Your task to perform on an android device: Add "bose soundlink" to the cart on amazon Image 0: 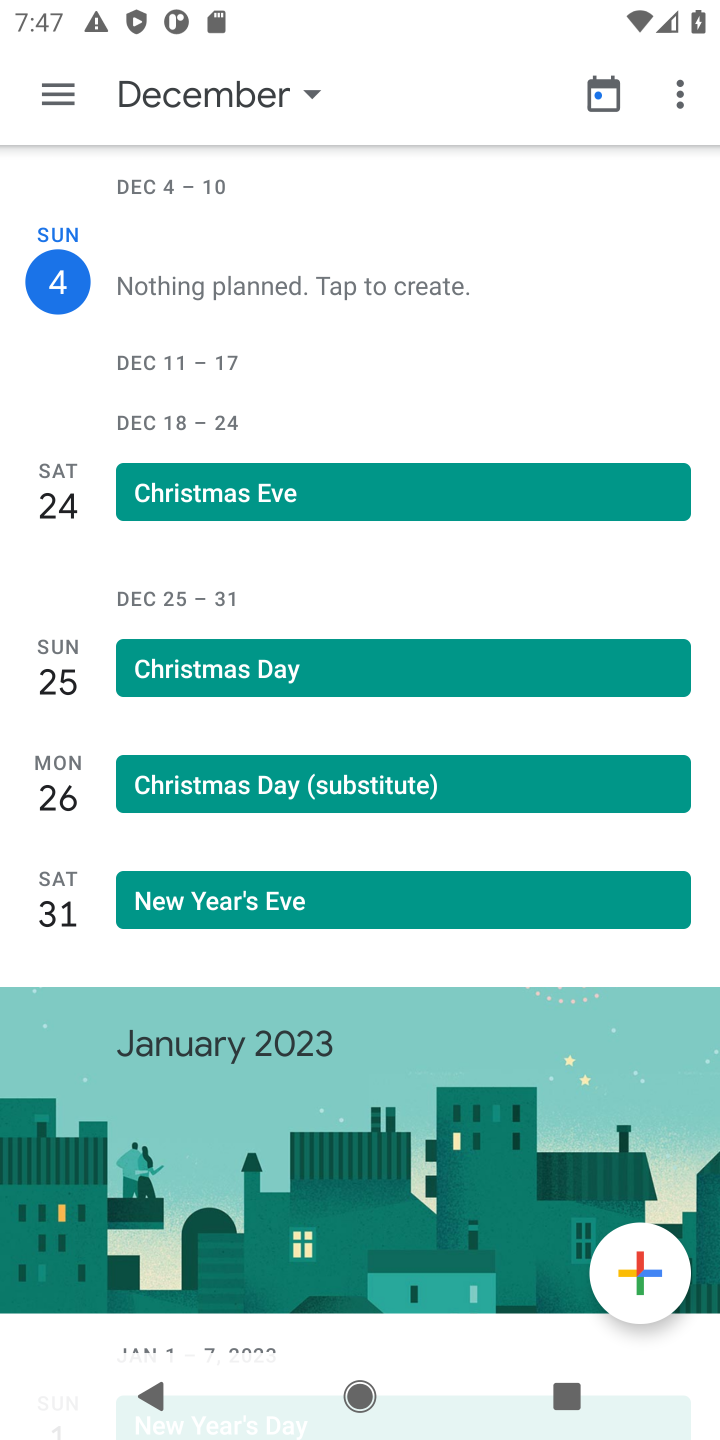
Step 0: press home button
Your task to perform on an android device: Add "bose soundlink" to the cart on amazon Image 1: 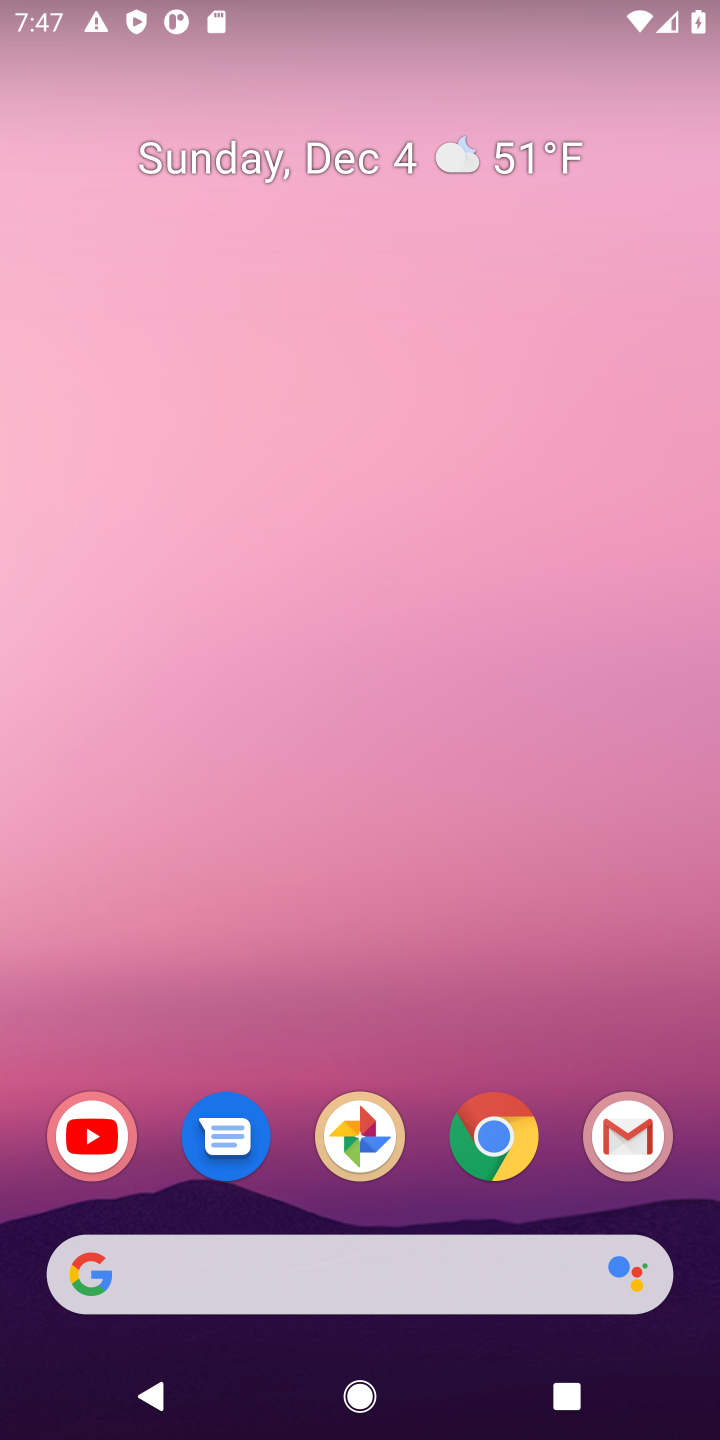
Step 1: click (469, 1145)
Your task to perform on an android device: Add "bose soundlink" to the cart on amazon Image 2: 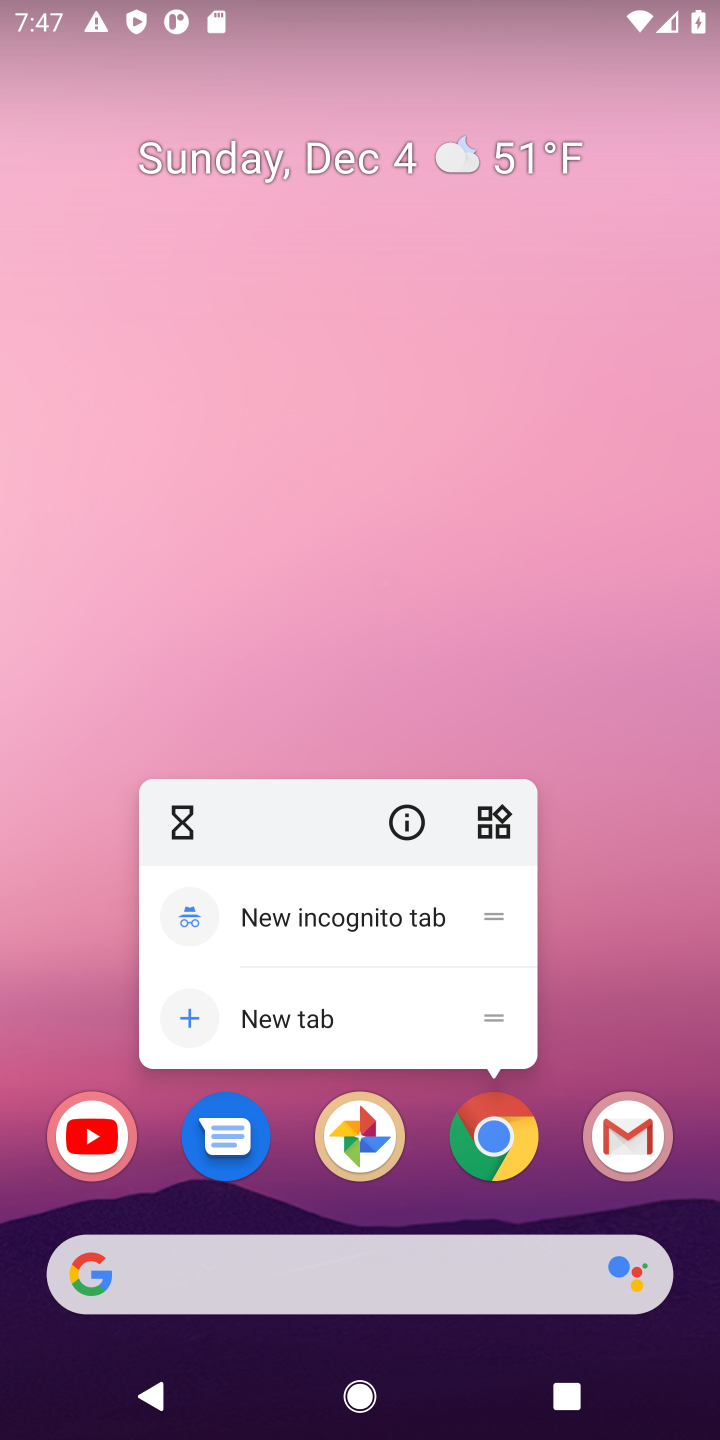
Step 2: click (475, 1155)
Your task to perform on an android device: Add "bose soundlink" to the cart on amazon Image 3: 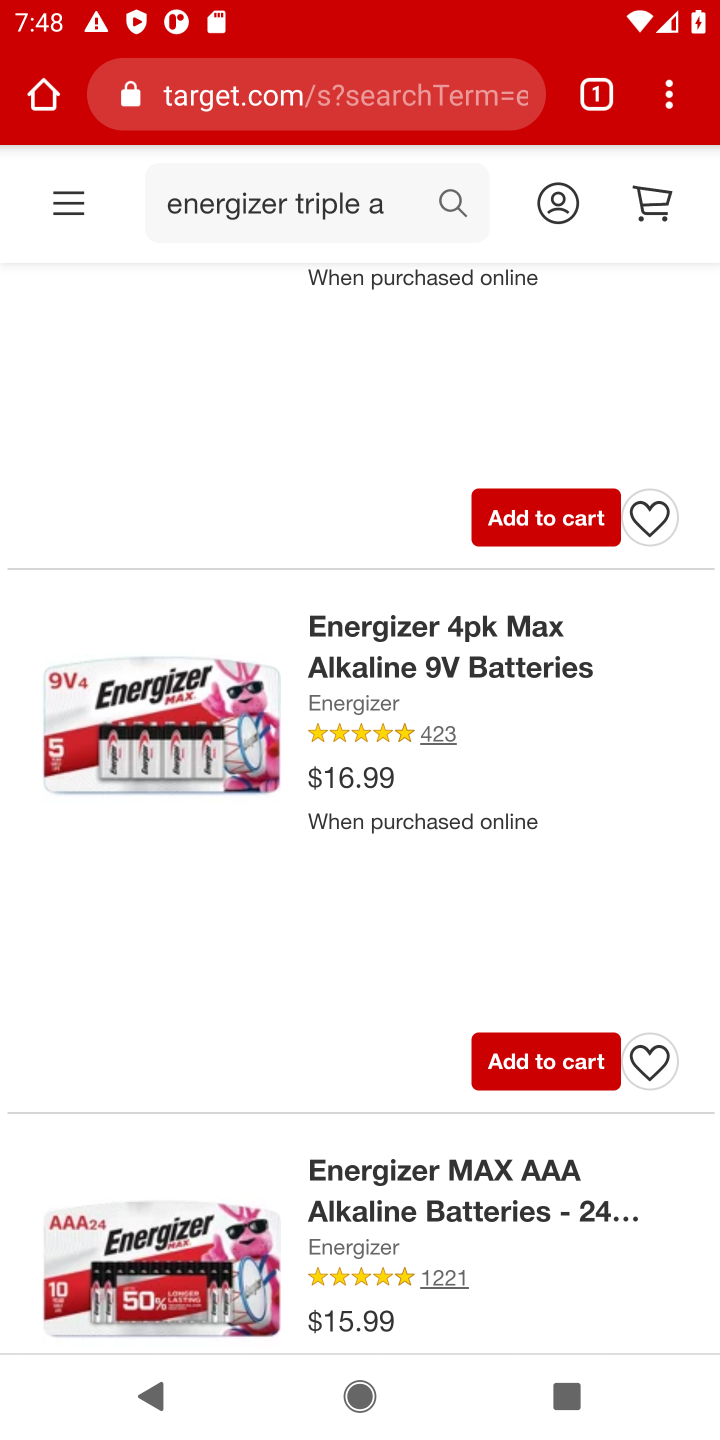
Step 3: click (413, 110)
Your task to perform on an android device: Add "bose soundlink" to the cart on amazon Image 4: 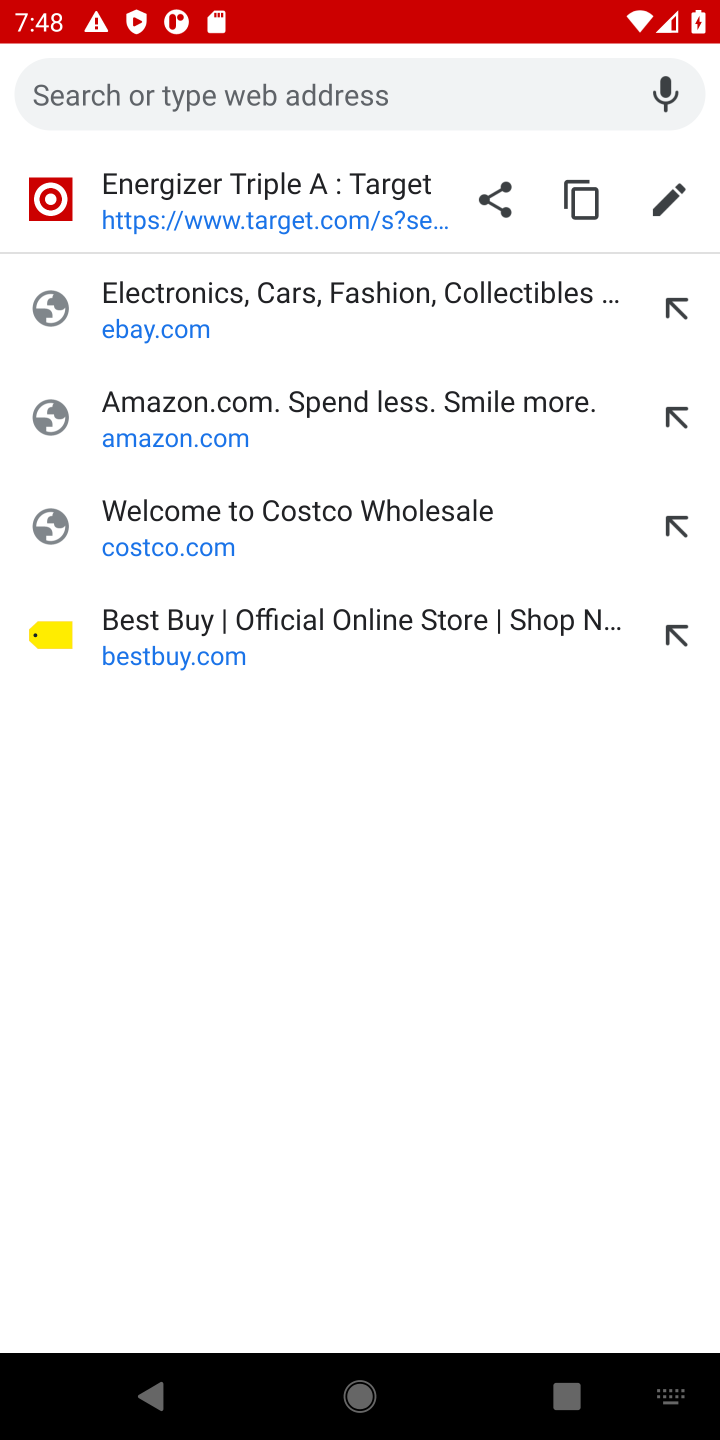
Step 4: click (307, 397)
Your task to perform on an android device: Add "bose soundlink" to the cart on amazon Image 5: 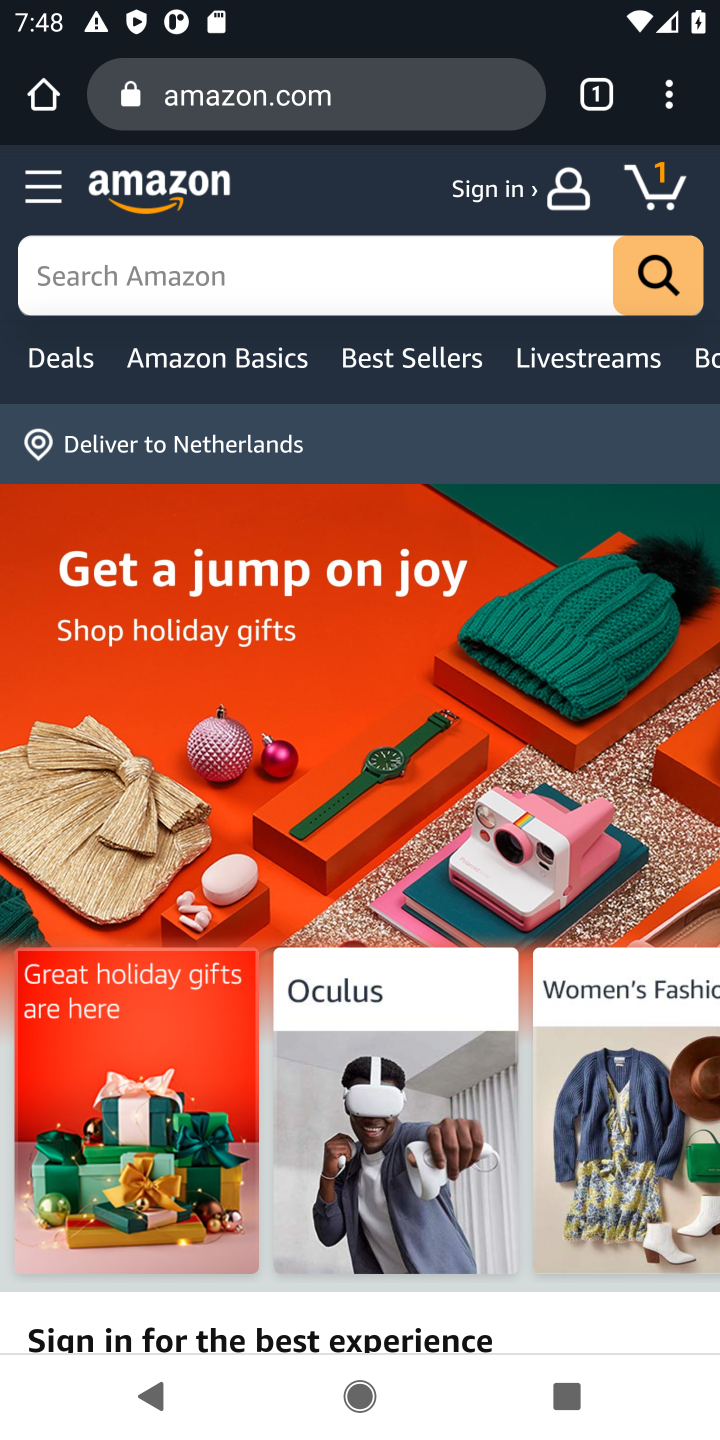
Step 5: click (330, 266)
Your task to perform on an android device: Add "bose soundlink" to the cart on amazon Image 6: 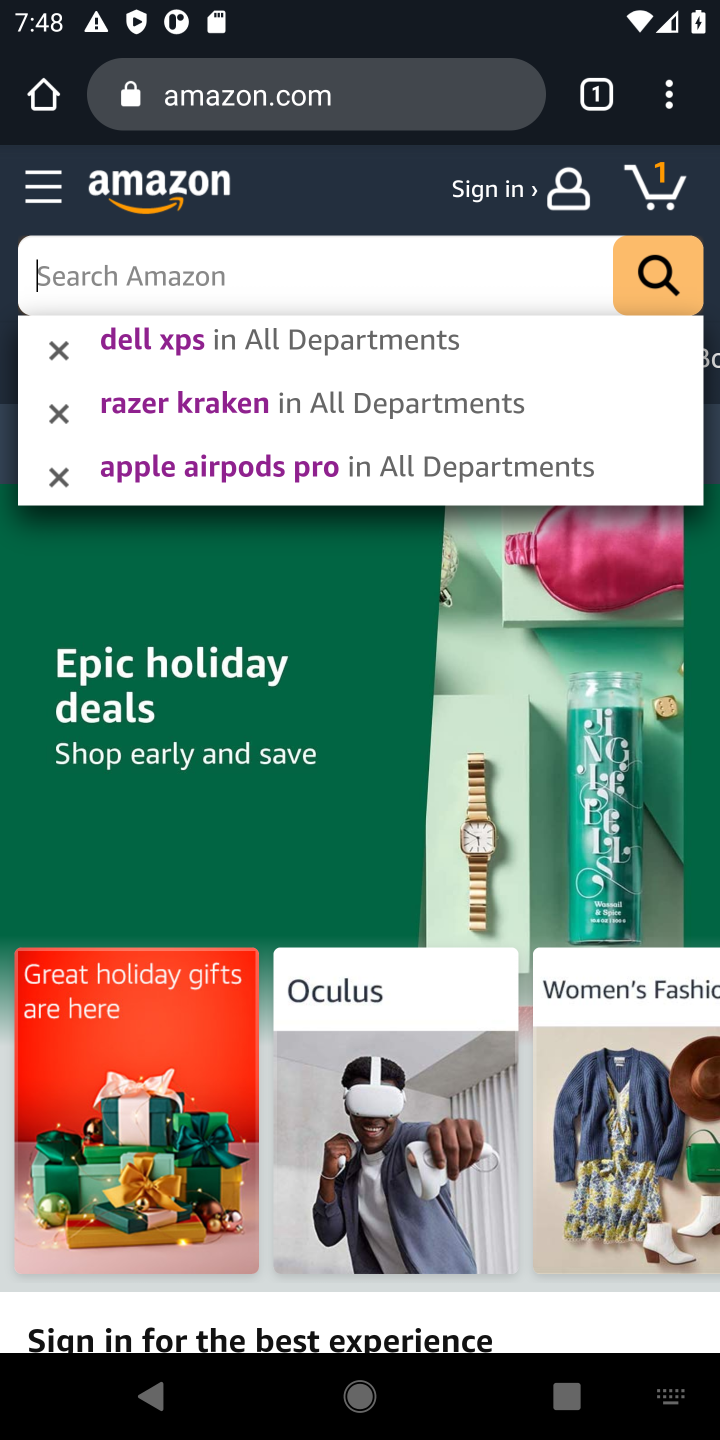
Step 6: type "bose soundlink"
Your task to perform on an android device: Add "bose soundlink" to the cart on amazon Image 7: 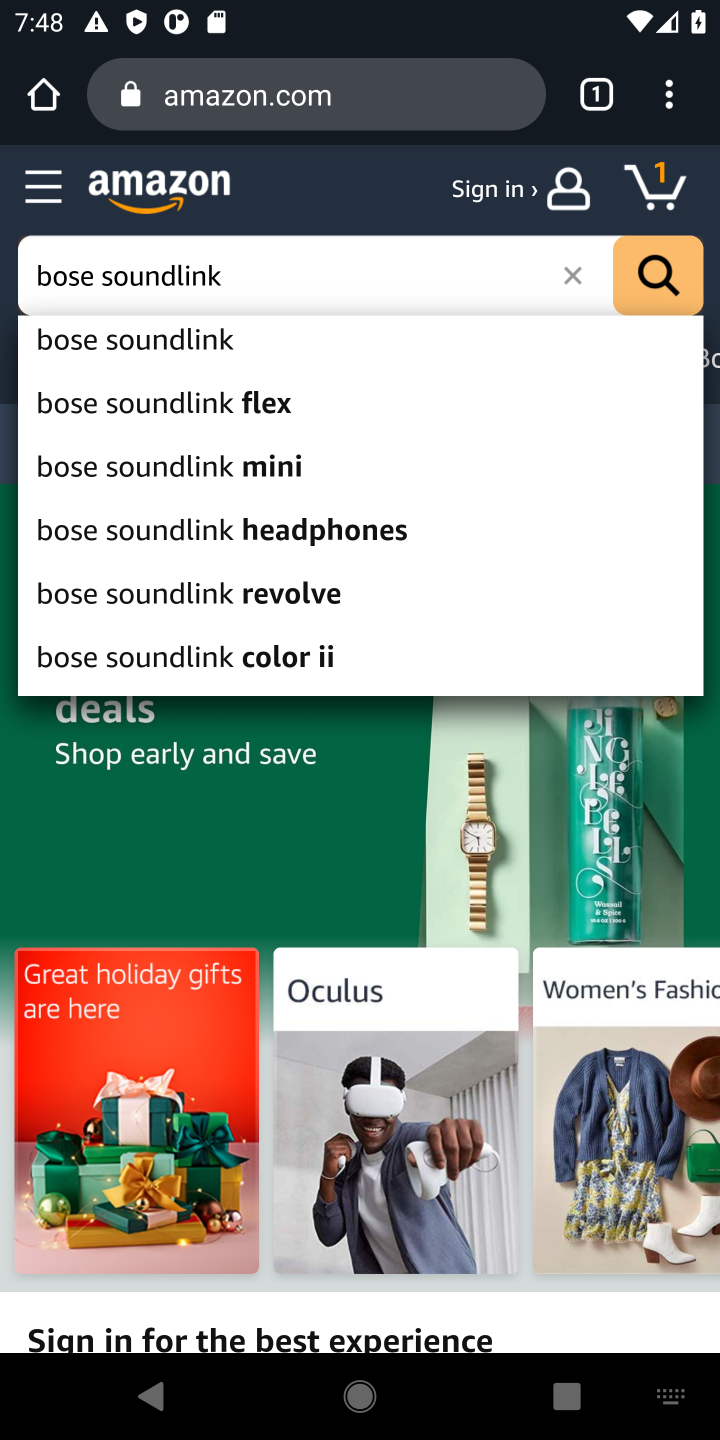
Step 7: click (195, 338)
Your task to perform on an android device: Add "bose soundlink" to the cart on amazon Image 8: 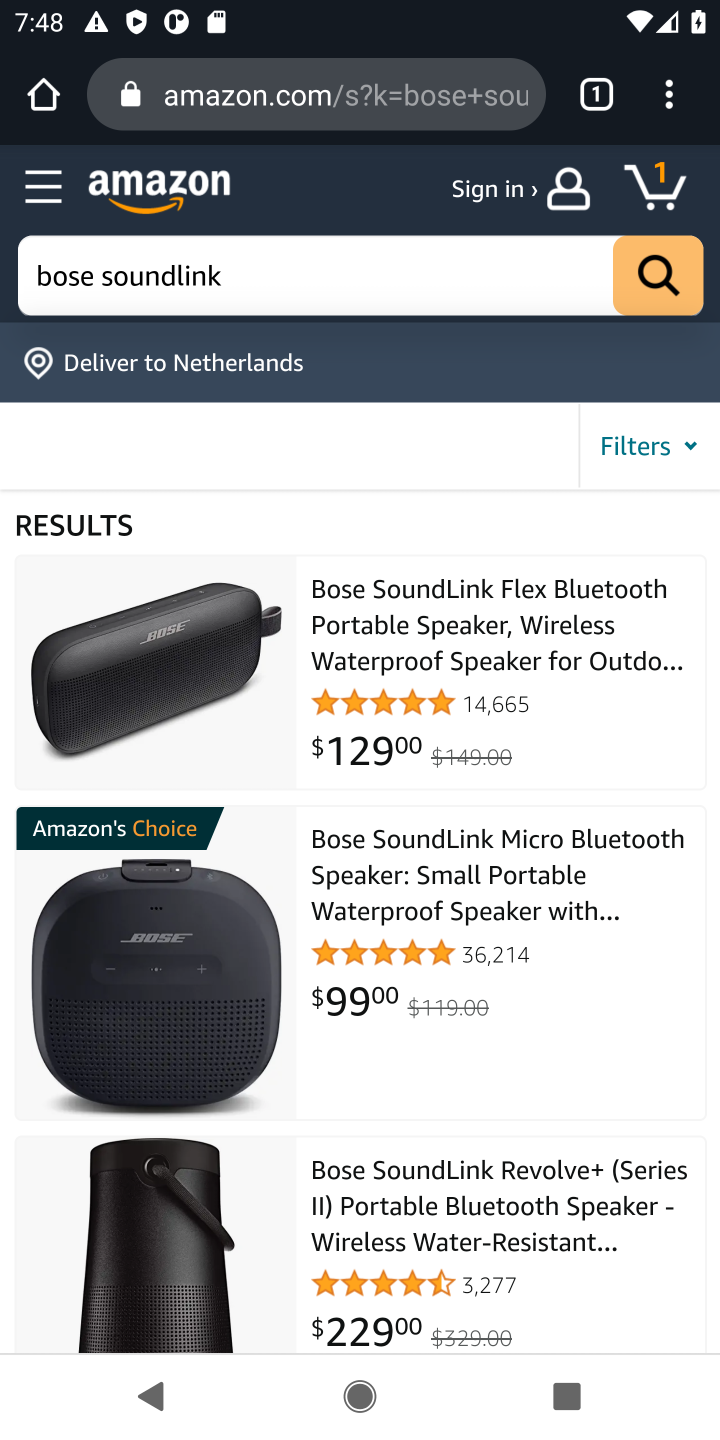
Step 8: click (600, 648)
Your task to perform on an android device: Add "bose soundlink" to the cart on amazon Image 9: 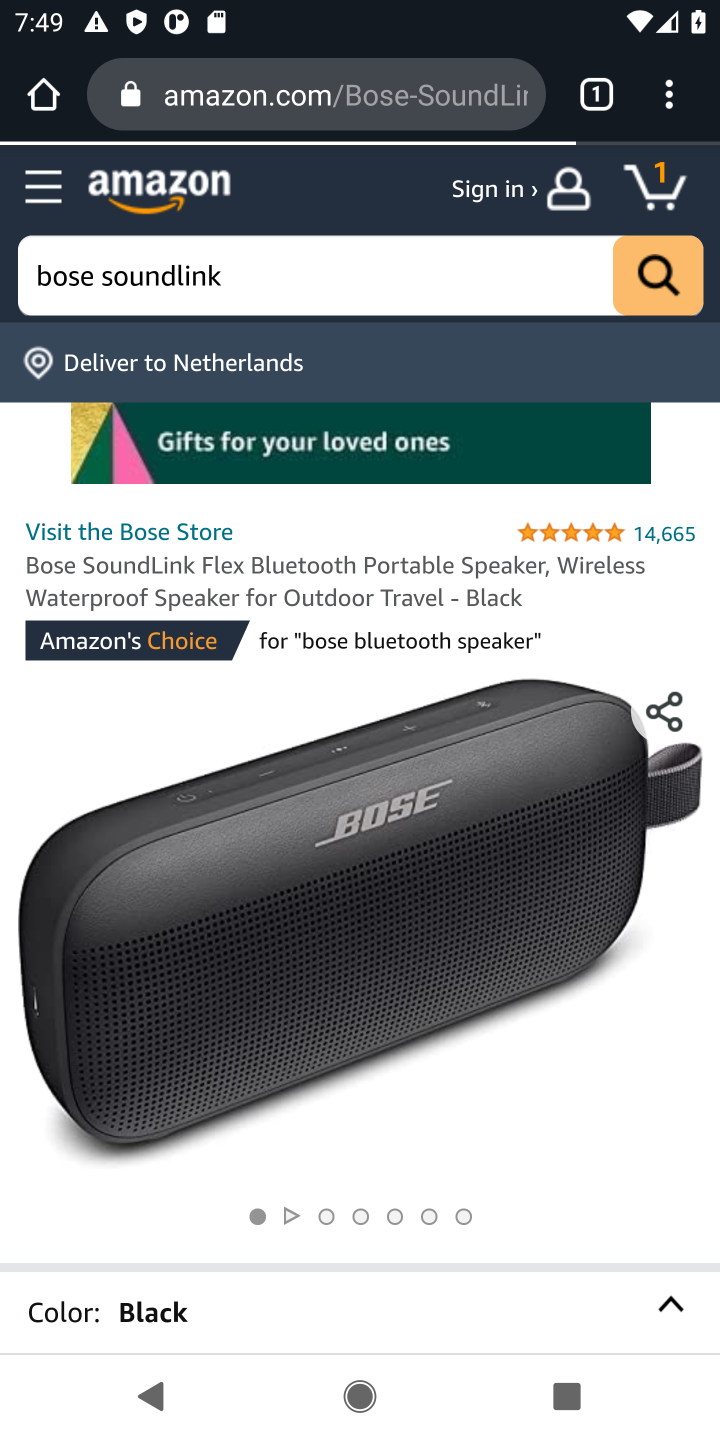
Step 9: drag from (555, 1171) to (713, 908)
Your task to perform on an android device: Add "bose soundlink" to the cart on amazon Image 10: 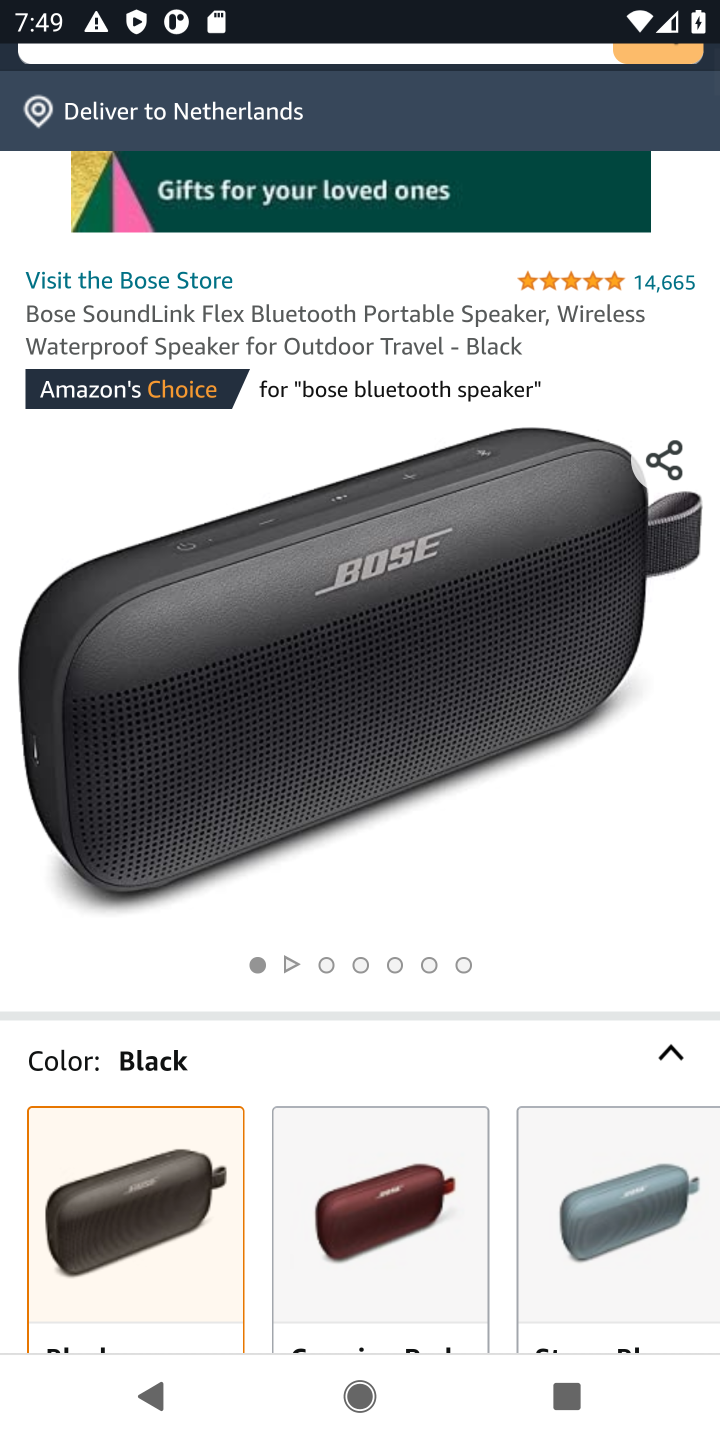
Step 10: drag from (518, 964) to (710, 627)
Your task to perform on an android device: Add "bose soundlink" to the cart on amazon Image 11: 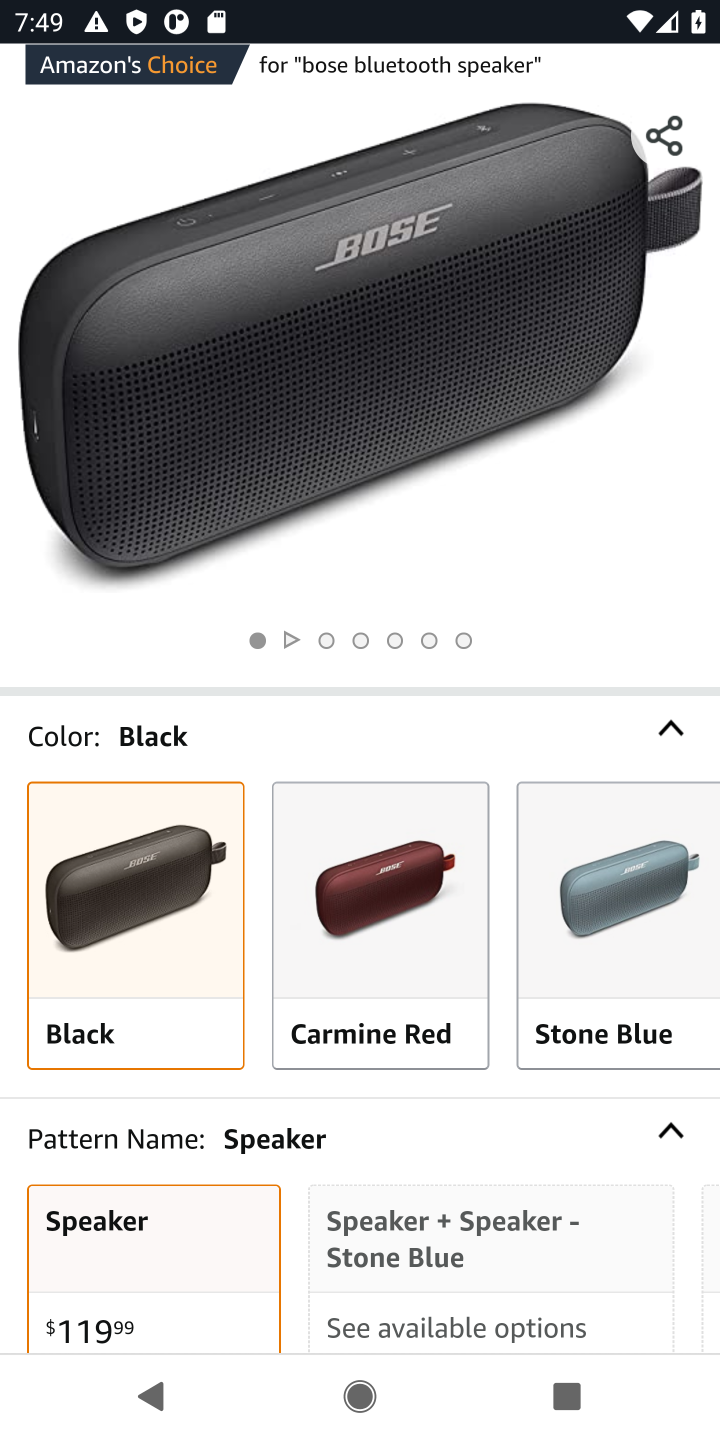
Step 11: drag from (457, 1120) to (640, 542)
Your task to perform on an android device: Add "bose soundlink" to the cart on amazon Image 12: 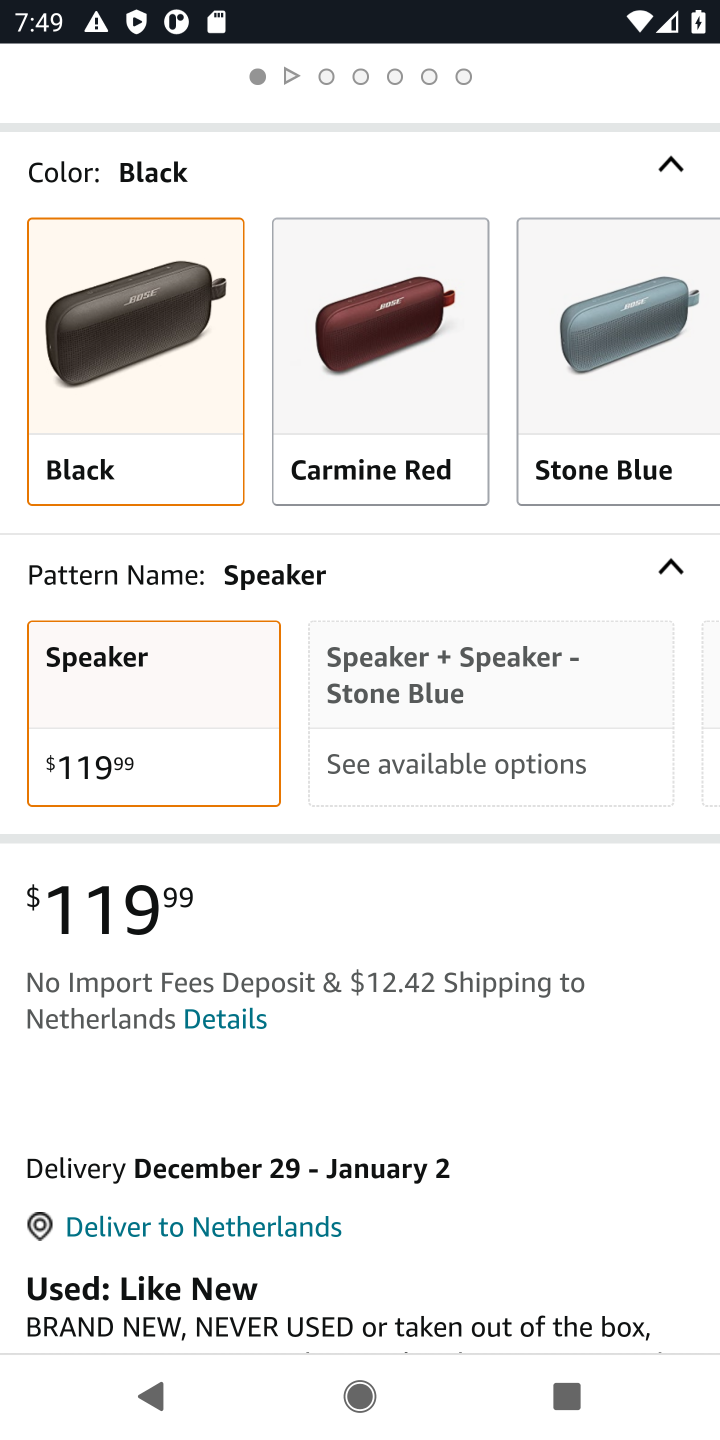
Step 12: click (658, 659)
Your task to perform on an android device: Add "bose soundlink" to the cart on amazon Image 13: 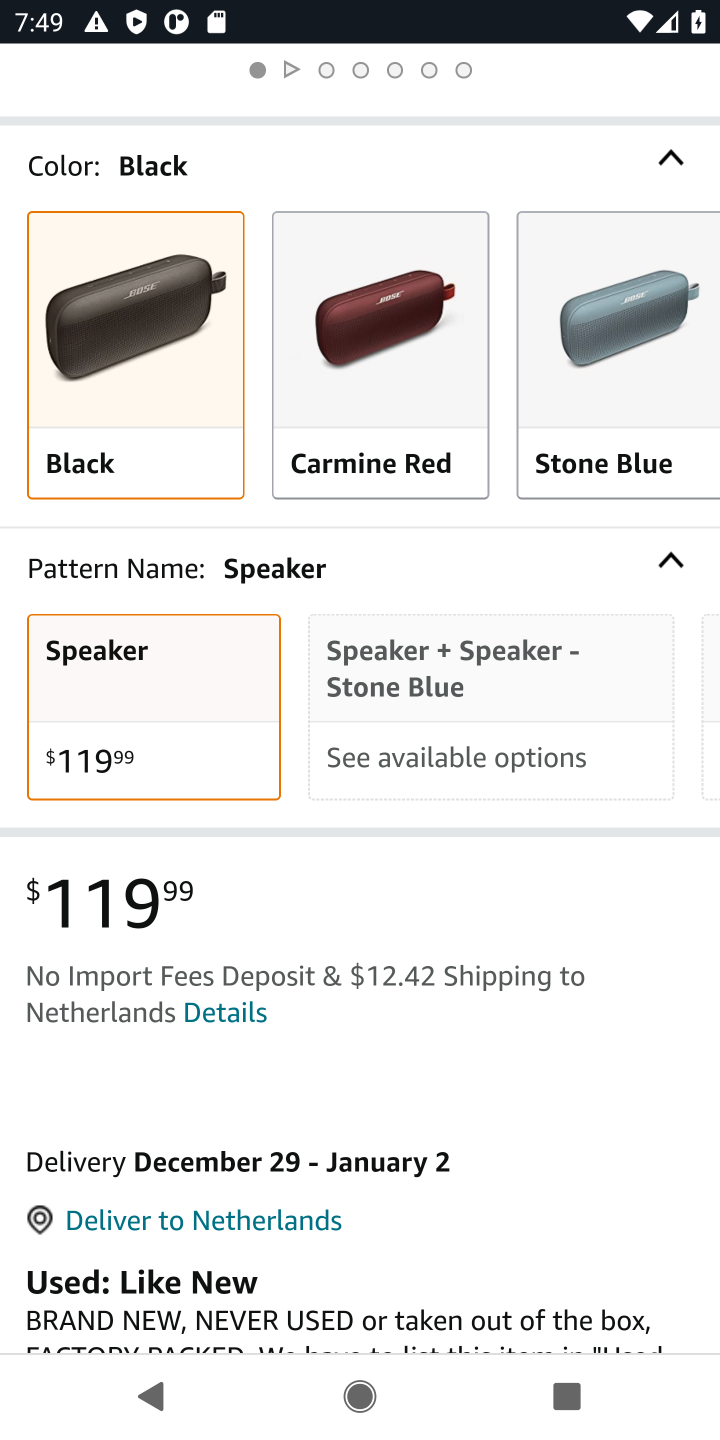
Step 13: drag from (552, 1208) to (720, 448)
Your task to perform on an android device: Add "bose soundlink" to the cart on amazon Image 14: 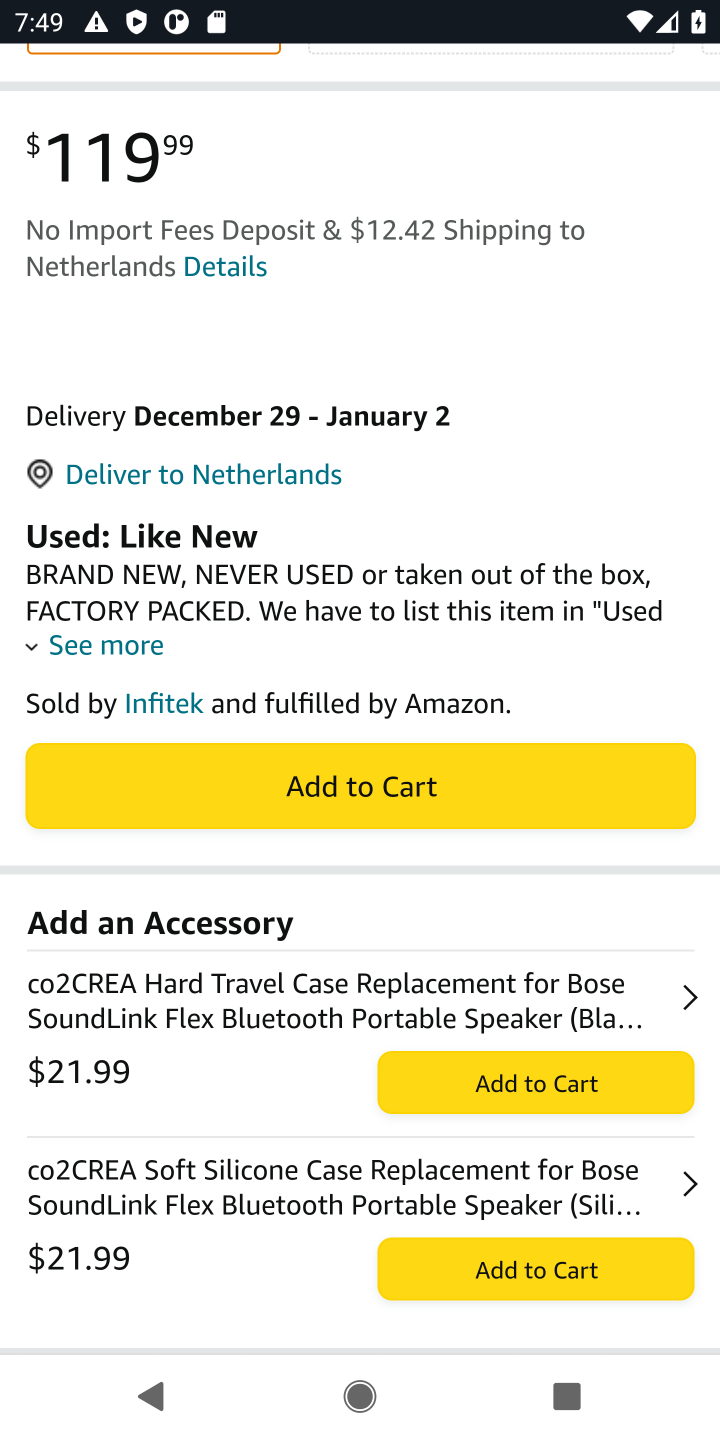
Step 14: click (474, 789)
Your task to perform on an android device: Add "bose soundlink" to the cart on amazon Image 15: 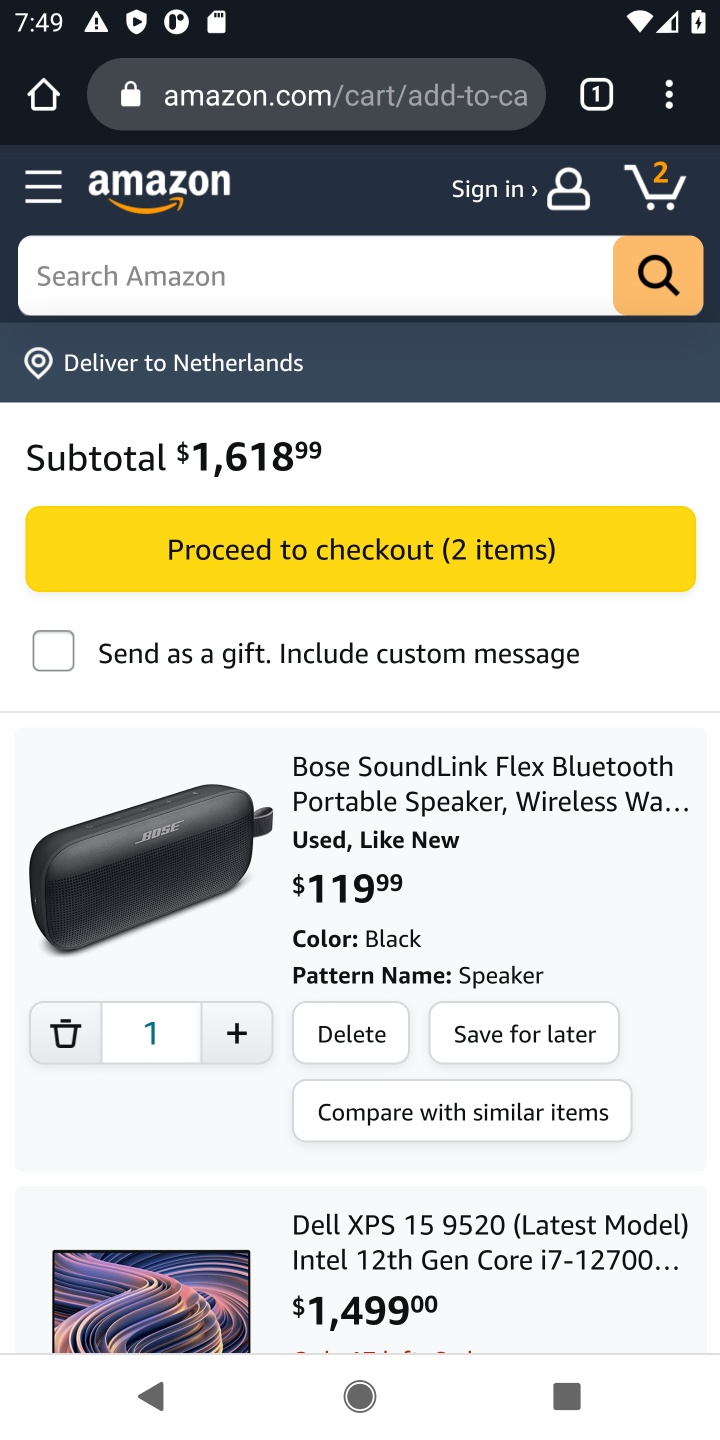
Step 15: task complete